Your task to perform on an android device: Go to location settings Image 0: 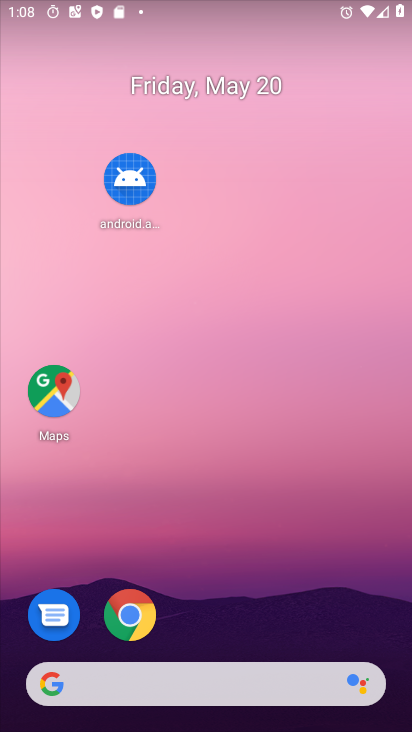
Step 0: drag from (329, 609) to (324, 194)
Your task to perform on an android device: Go to location settings Image 1: 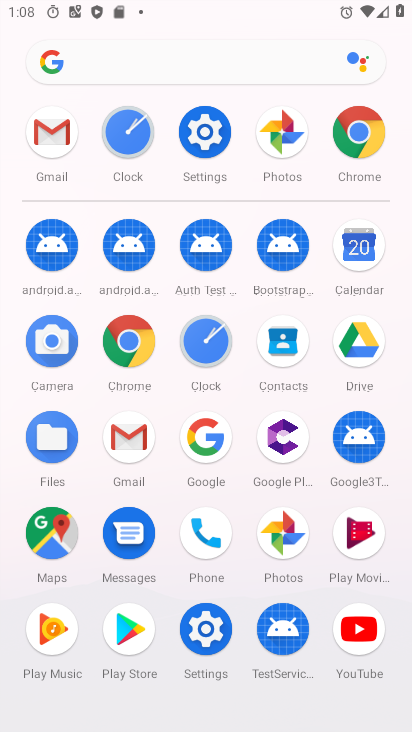
Step 1: click (212, 625)
Your task to perform on an android device: Go to location settings Image 2: 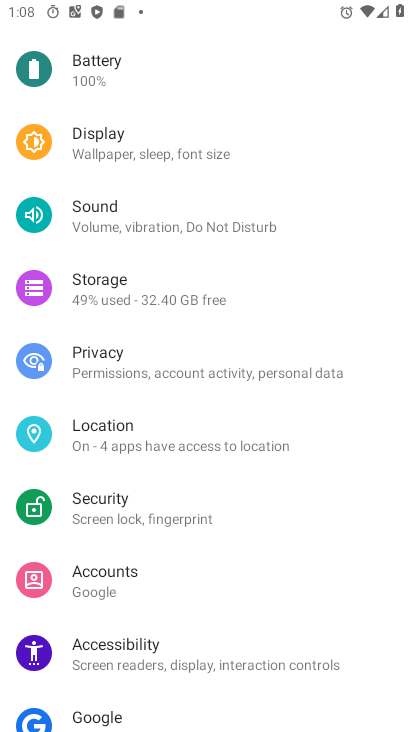
Step 2: click (141, 424)
Your task to perform on an android device: Go to location settings Image 3: 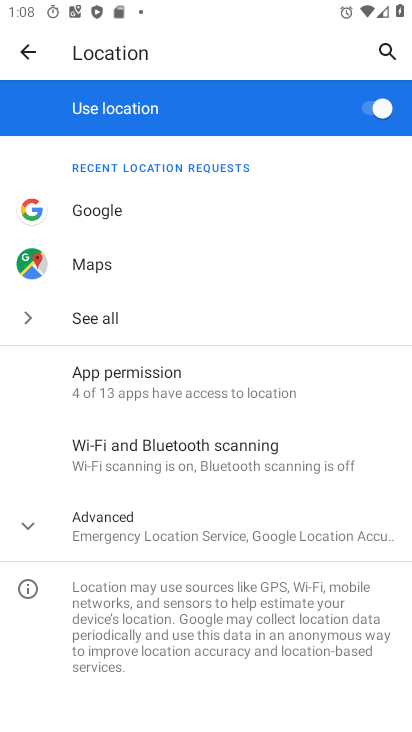
Step 3: task complete